Your task to perform on an android device: allow notifications from all sites in the chrome app Image 0: 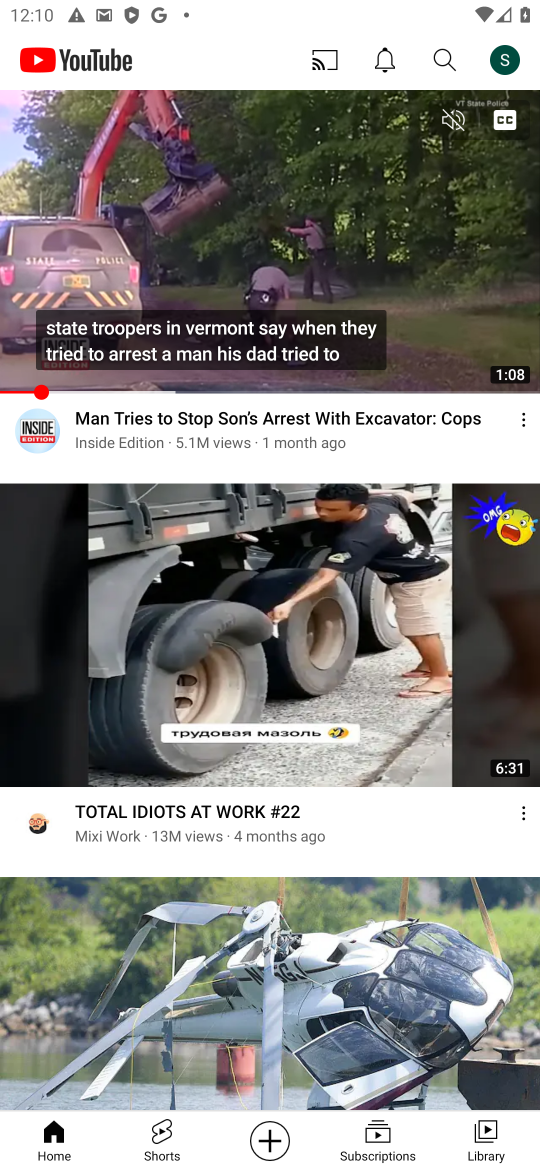
Step 0: press home button
Your task to perform on an android device: allow notifications from all sites in the chrome app Image 1: 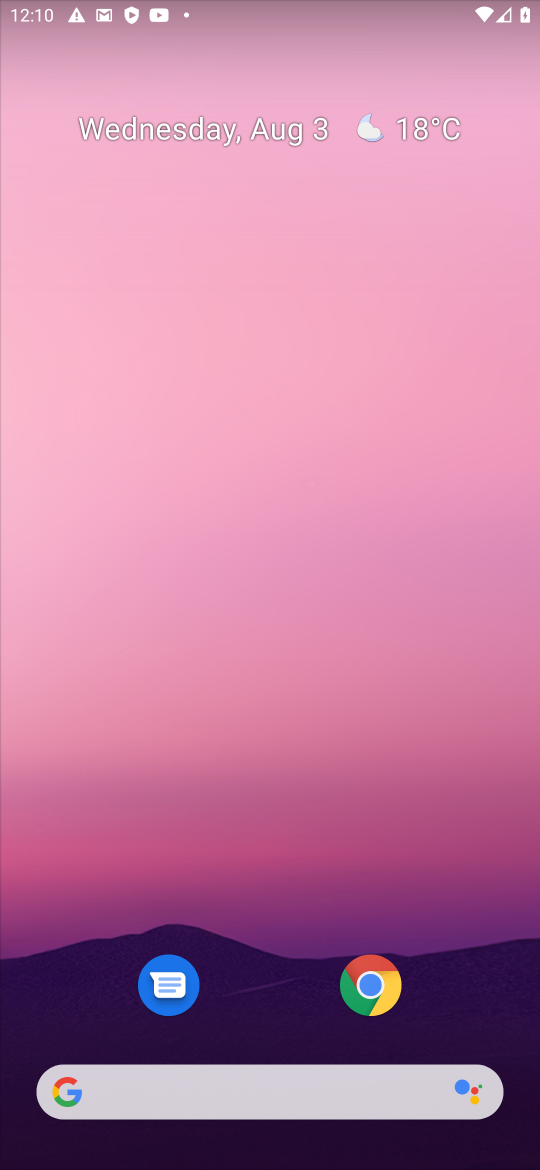
Step 1: click (386, 948)
Your task to perform on an android device: allow notifications from all sites in the chrome app Image 2: 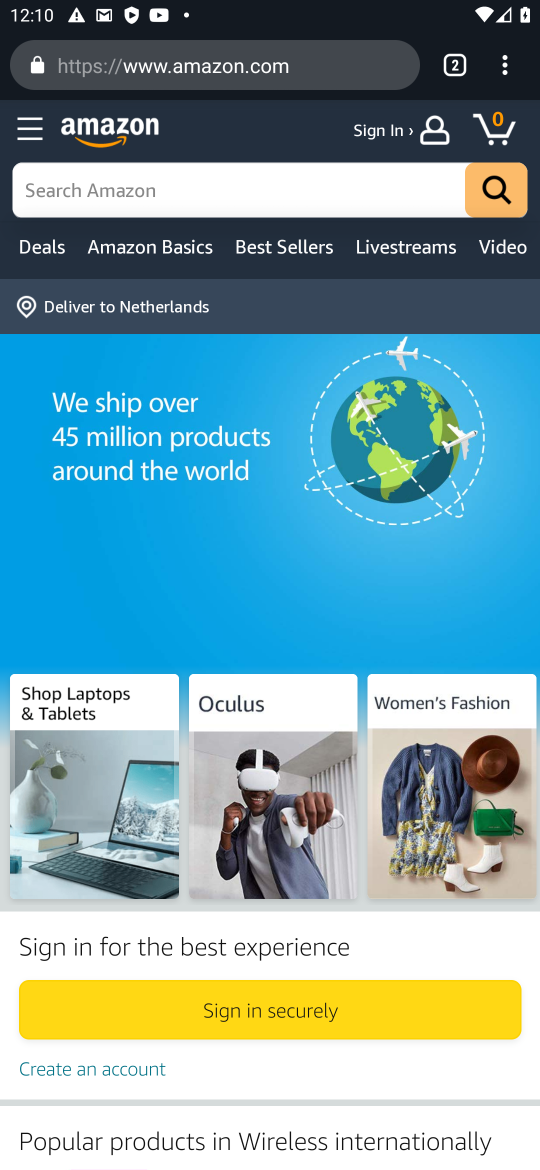
Step 2: click (522, 68)
Your task to perform on an android device: allow notifications from all sites in the chrome app Image 3: 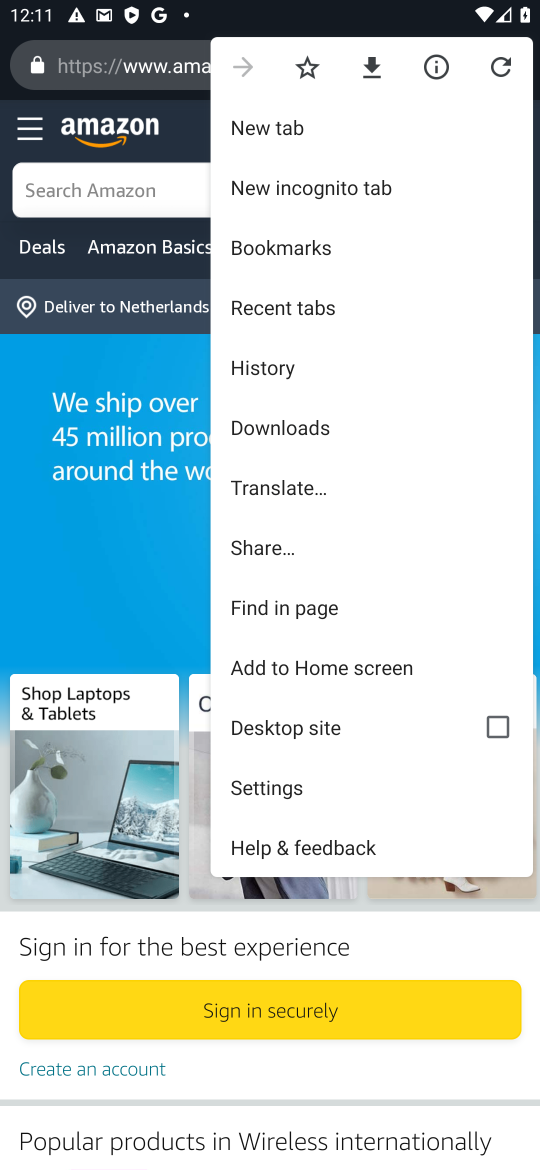
Step 3: task complete